Your task to perform on an android device: When is my next meeting? Image 0: 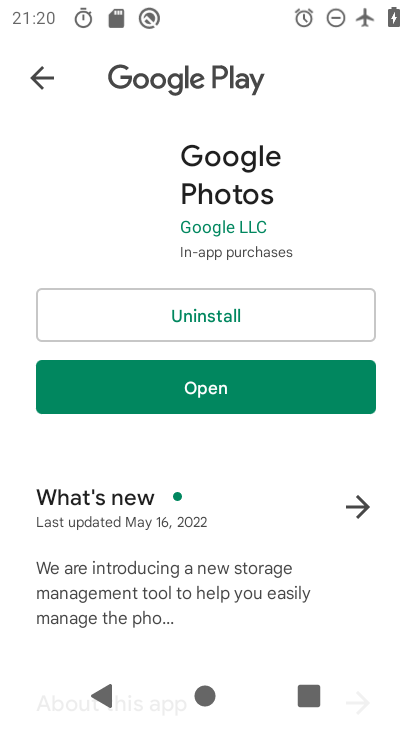
Step 0: click (268, 162)
Your task to perform on an android device: When is my next meeting? Image 1: 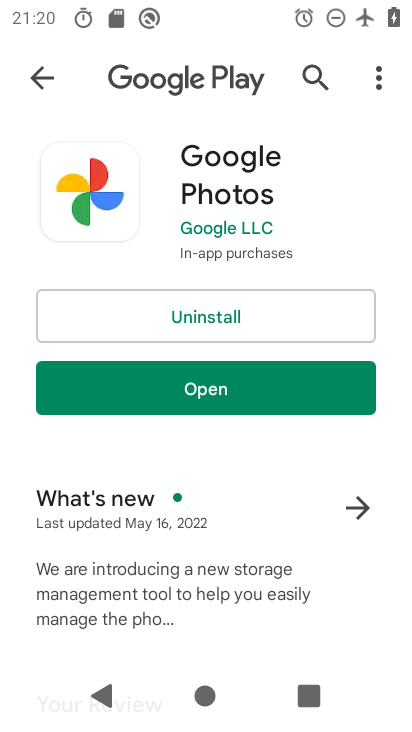
Step 1: press home button
Your task to perform on an android device: When is my next meeting? Image 2: 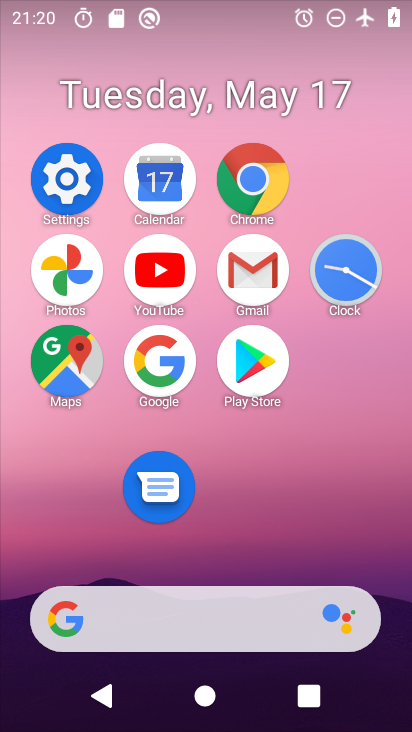
Step 2: click (174, 182)
Your task to perform on an android device: When is my next meeting? Image 3: 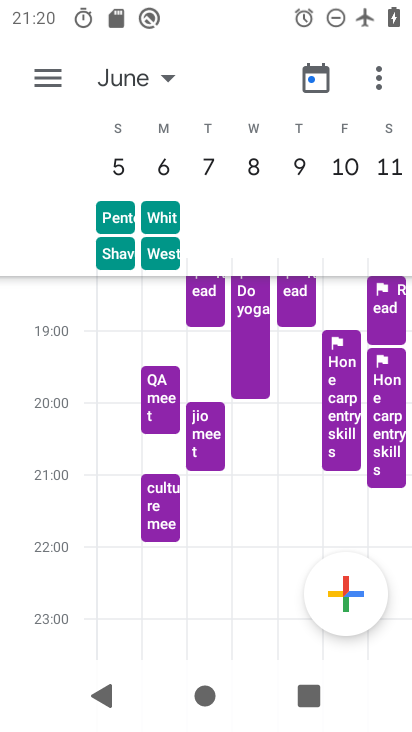
Step 3: click (138, 88)
Your task to perform on an android device: When is my next meeting? Image 4: 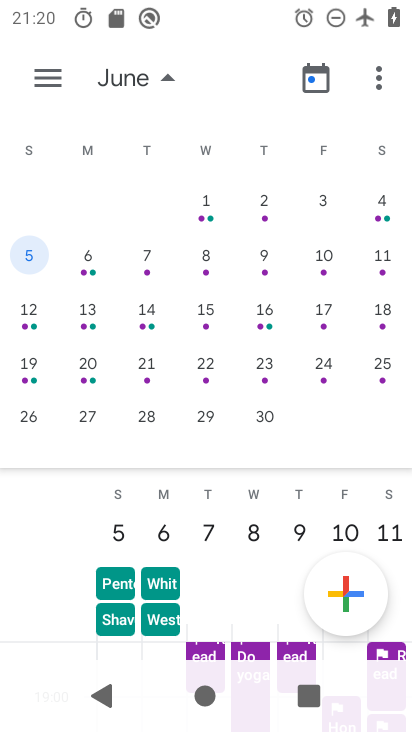
Step 4: drag from (24, 313) to (401, 337)
Your task to perform on an android device: When is my next meeting? Image 5: 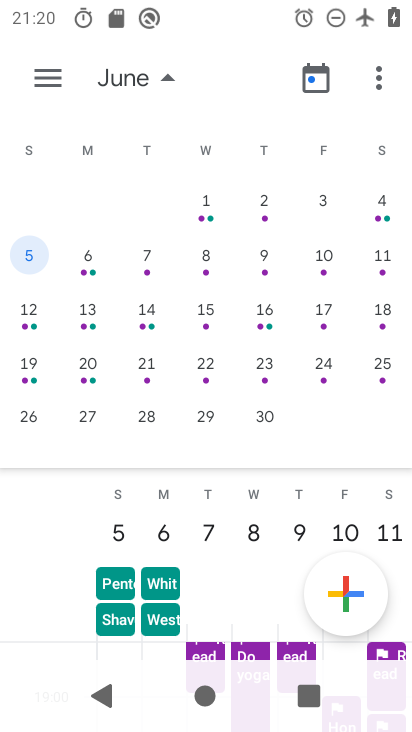
Step 5: drag from (58, 318) to (406, 340)
Your task to perform on an android device: When is my next meeting? Image 6: 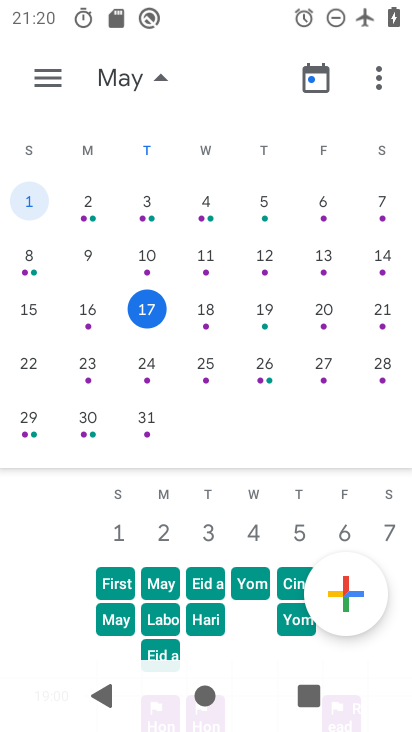
Step 6: click (276, 315)
Your task to perform on an android device: When is my next meeting? Image 7: 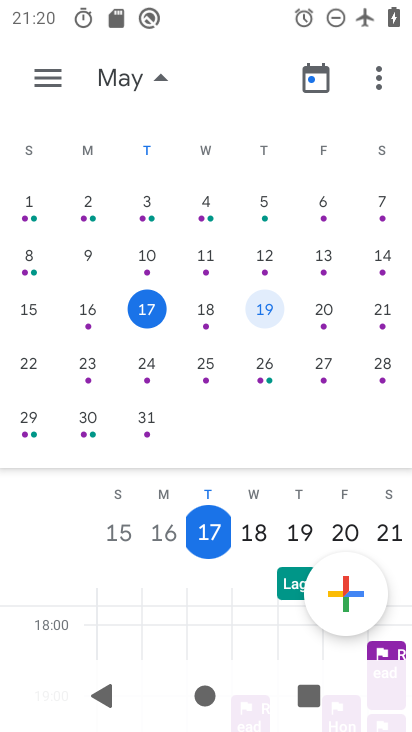
Step 7: click (307, 532)
Your task to perform on an android device: When is my next meeting? Image 8: 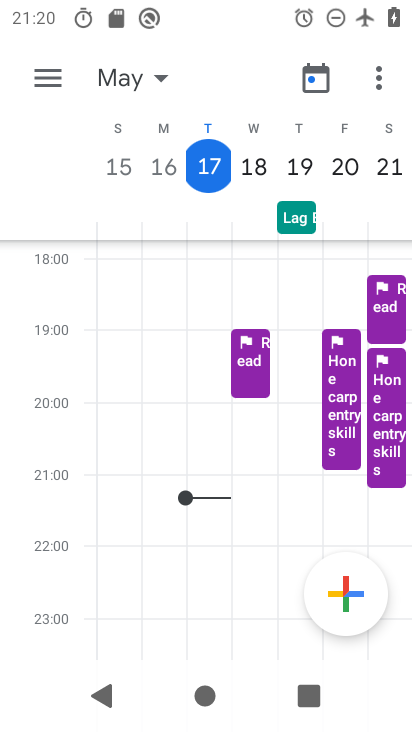
Step 8: click (300, 169)
Your task to perform on an android device: When is my next meeting? Image 9: 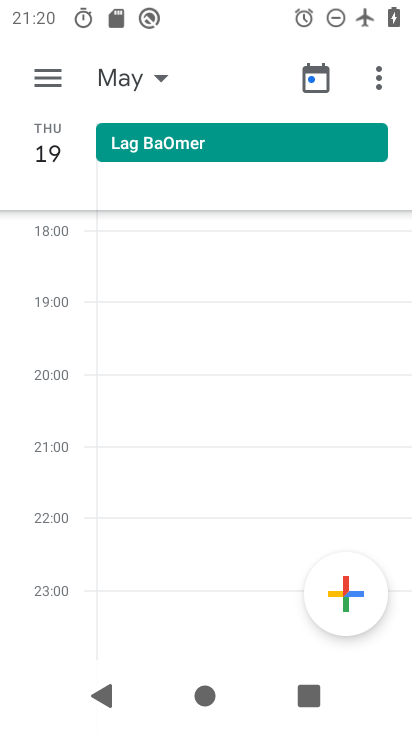
Step 9: task complete